Your task to perform on an android device: manage bookmarks in the chrome app Image 0: 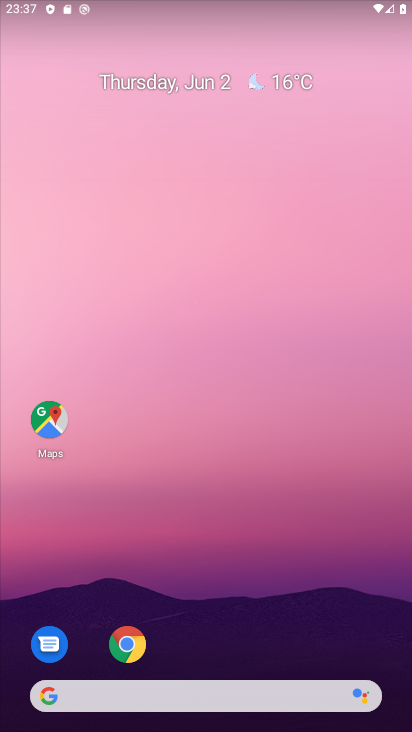
Step 0: click (125, 641)
Your task to perform on an android device: manage bookmarks in the chrome app Image 1: 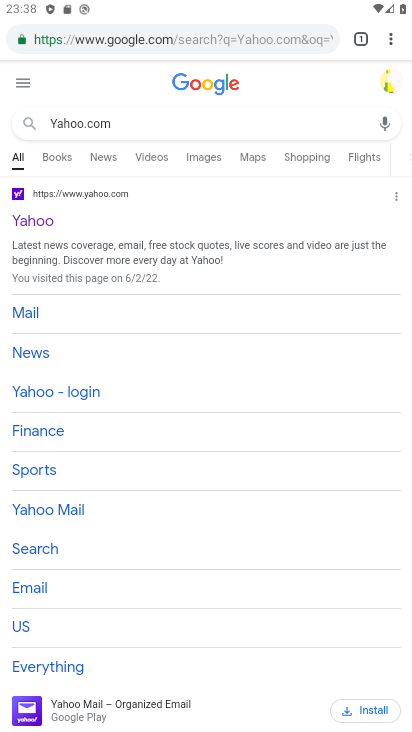
Step 1: click (394, 37)
Your task to perform on an android device: manage bookmarks in the chrome app Image 2: 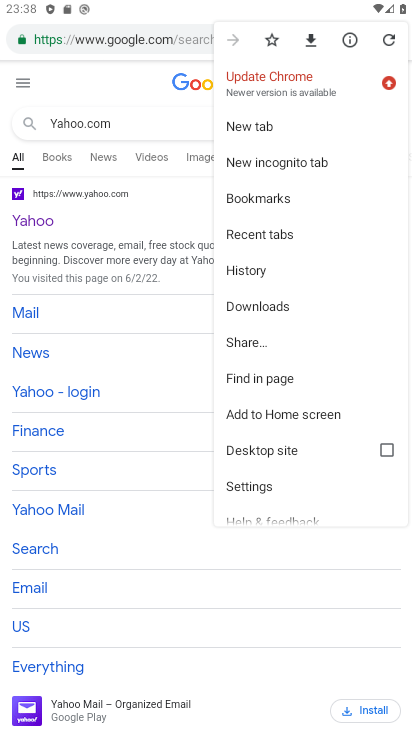
Step 2: click (270, 200)
Your task to perform on an android device: manage bookmarks in the chrome app Image 3: 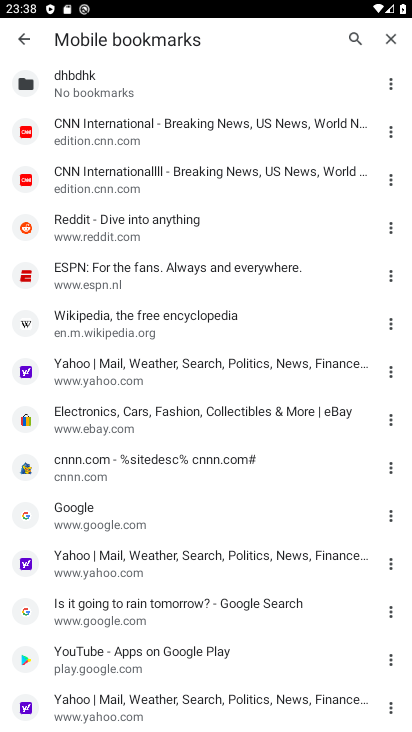
Step 3: task complete